Your task to perform on an android device: toggle translation in the chrome app Image 0: 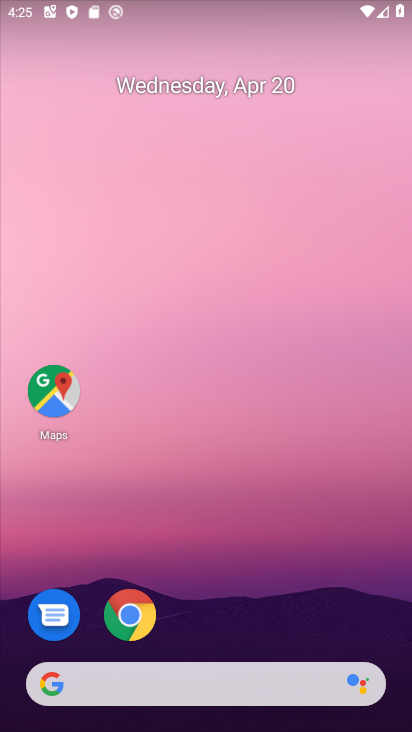
Step 0: click (137, 611)
Your task to perform on an android device: toggle translation in the chrome app Image 1: 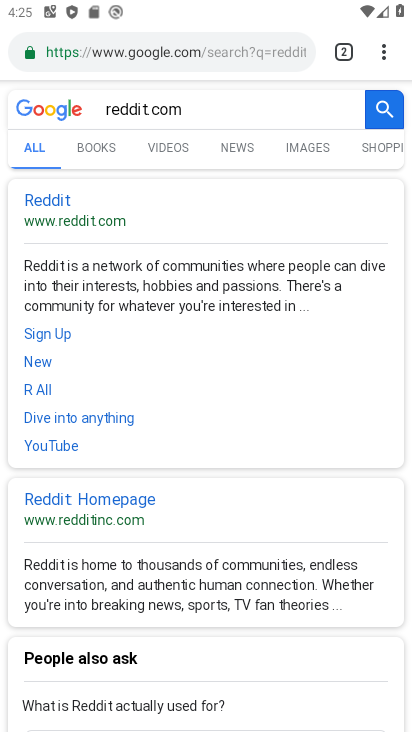
Step 1: click (378, 48)
Your task to perform on an android device: toggle translation in the chrome app Image 2: 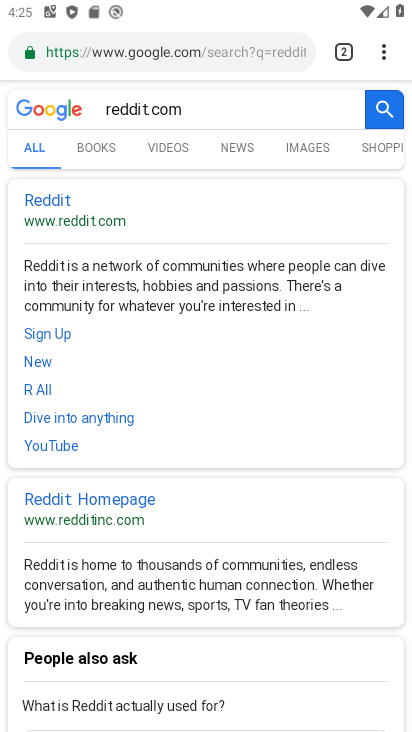
Step 2: click (384, 55)
Your task to perform on an android device: toggle translation in the chrome app Image 3: 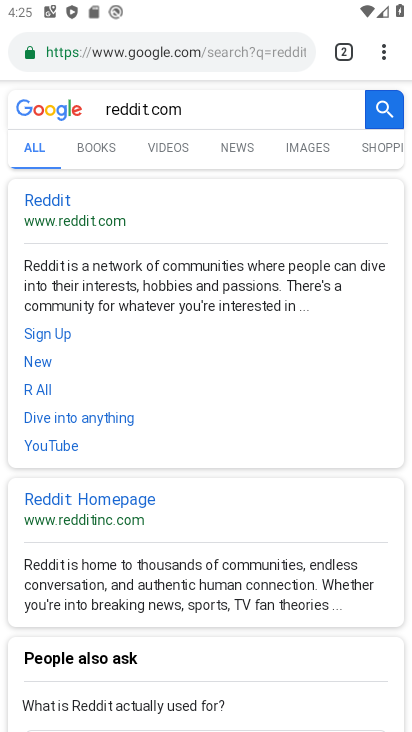
Step 3: click (379, 54)
Your task to perform on an android device: toggle translation in the chrome app Image 4: 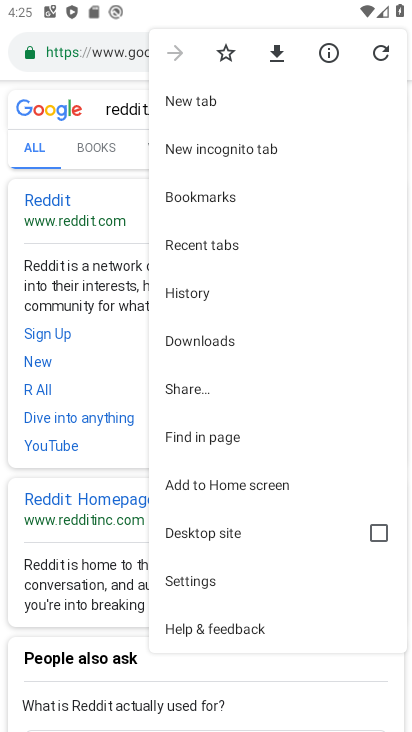
Step 4: click (184, 590)
Your task to perform on an android device: toggle translation in the chrome app Image 5: 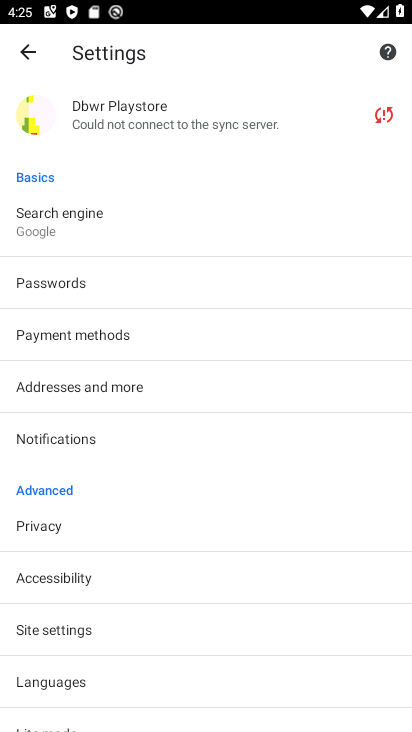
Step 5: click (65, 672)
Your task to perform on an android device: toggle translation in the chrome app Image 6: 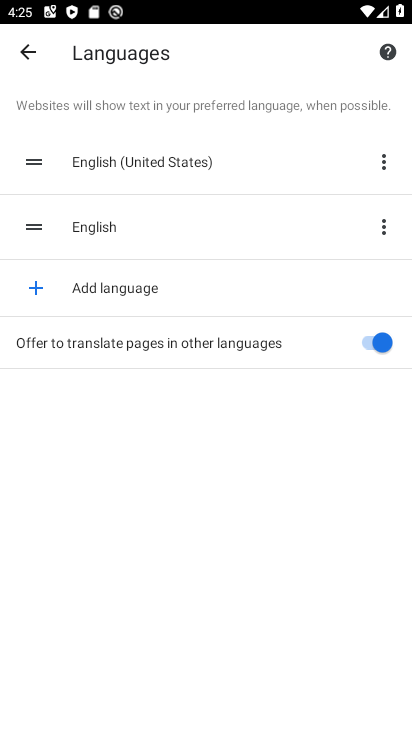
Step 6: task complete